Your task to perform on an android device: Open calendar and show me the second week of next month Image 0: 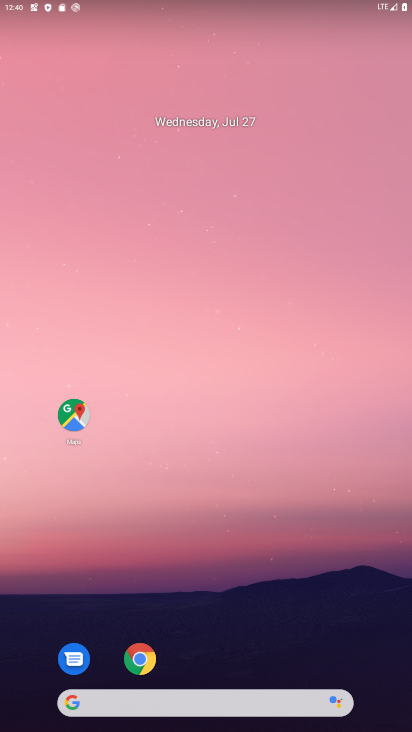
Step 0: drag from (213, 563) to (170, 2)
Your task to perform on an android device: Open calendar and show me the second week of next month Image 1: 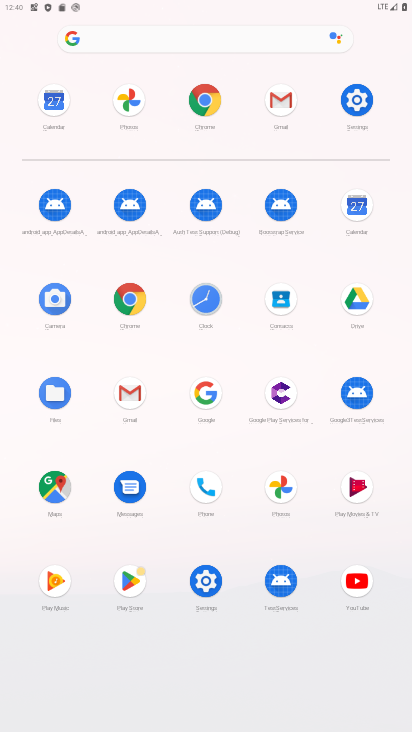
Step 1: click (357, 200)
Your task to perform on an android device: Open calendar and show me the second week of next month Image 2: 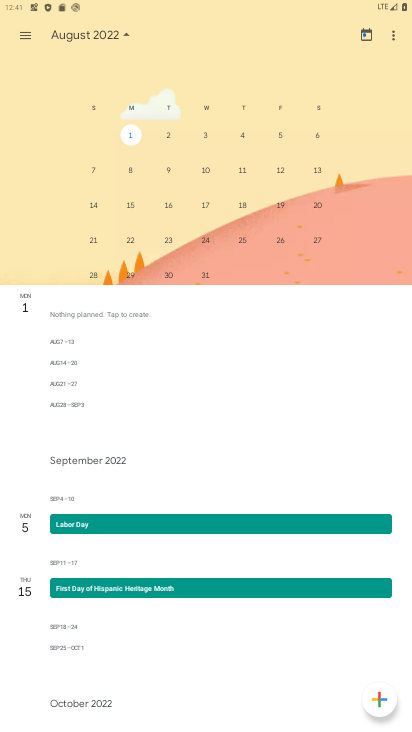
Step 2: click (318, 169)
Your task to perform on an android device: Open calendar and show me the second week of next month Image 3: 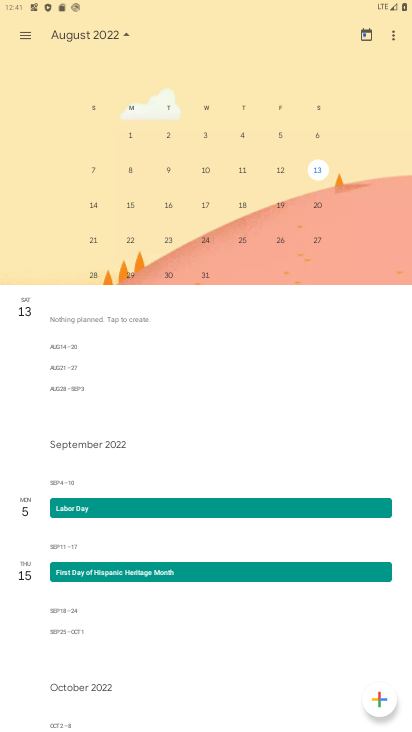
Step 3: task complete